Your task to perform on an android device: How do I get to the nearest AT&T Store? Image 0: 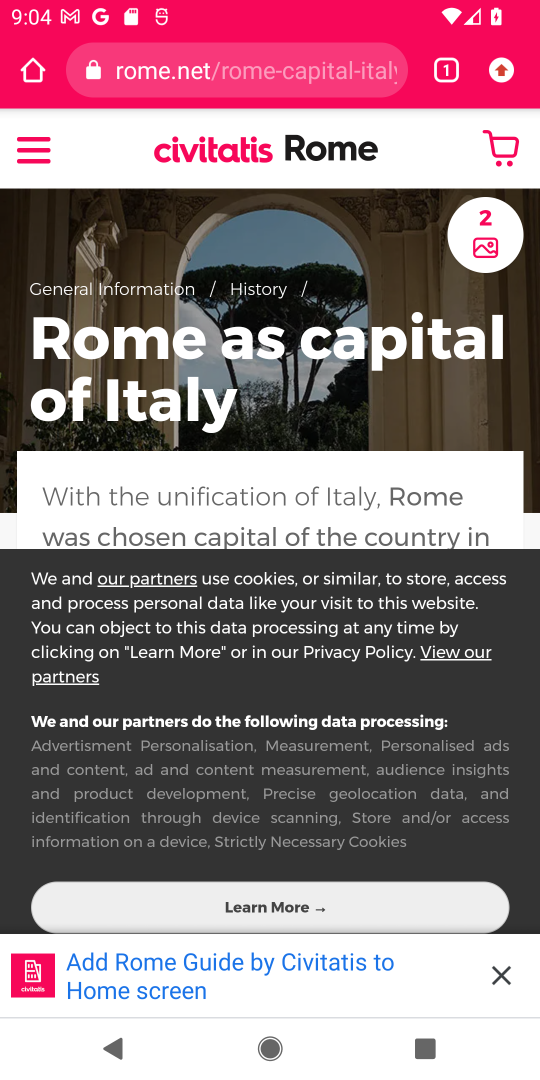
Step 0: press home button
Your task to perform on an android device: How do I get to the nearest AT&T Store? Image 1: 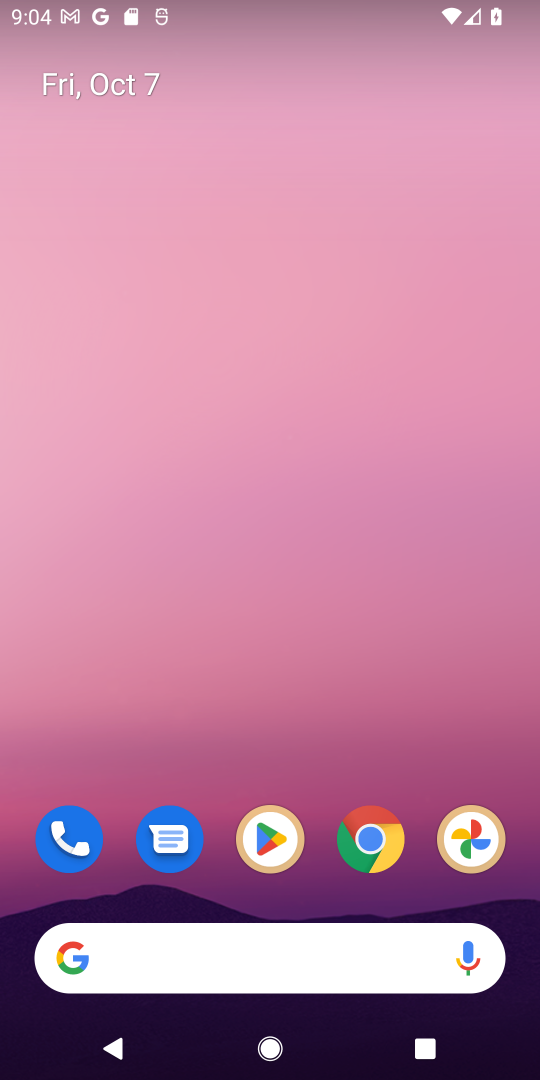
Step 1: click (374, 850)
Your task to perform on an android device: How do I get to the nearest AT&T Store? Image 2: 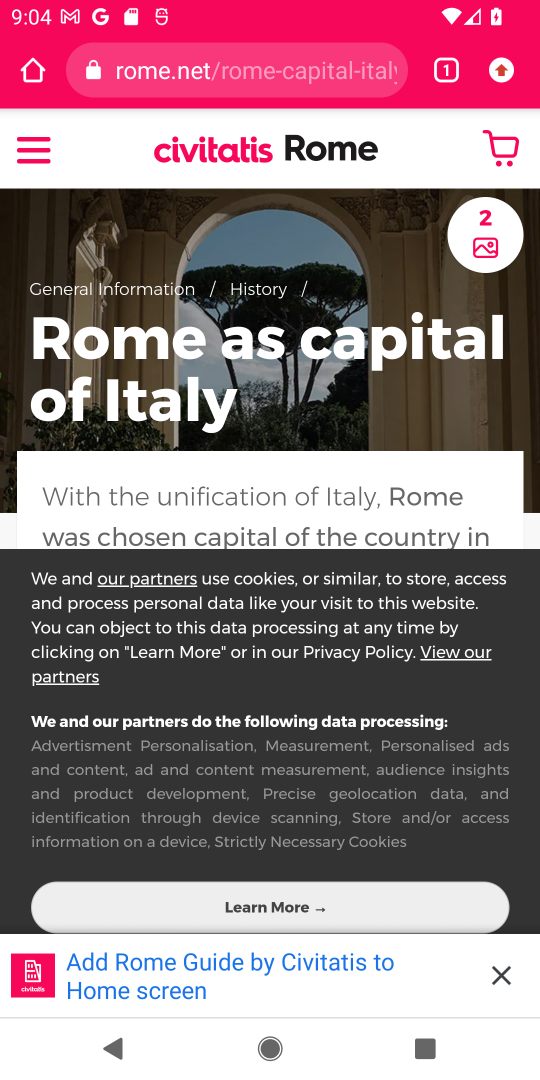
Step 2: click (332, 72)
Your task to perform on an android device: How do I get to the nearest AT&T Store? Image 3: 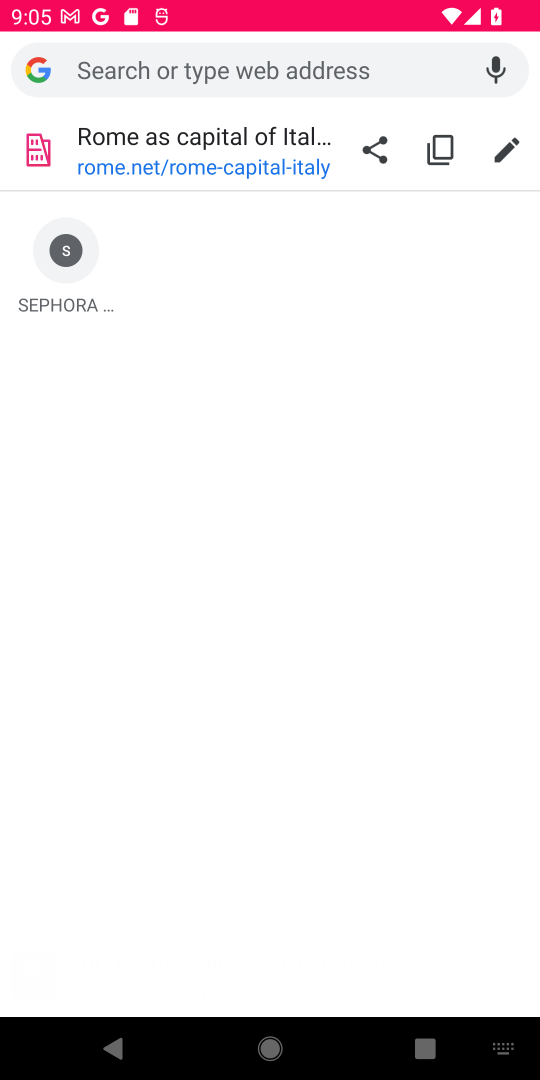
Step 3: type "nearest AT & T store"
Your task to perform on an android device: How do I get to the nearest AT&T Store? Image 4: 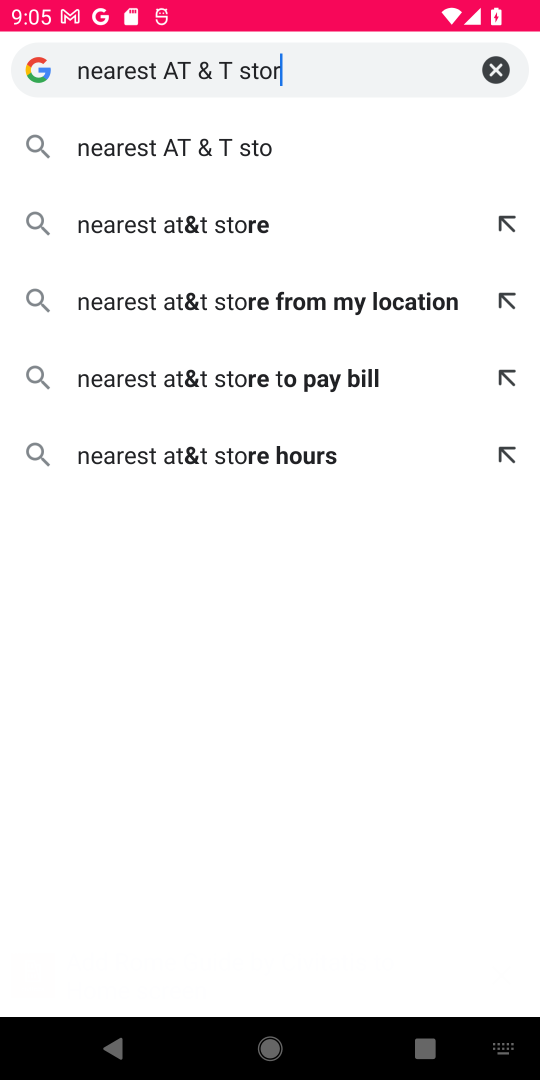
Step 4: type ""
Your task to perform on an android device: How do I get to the nearest AT&T Store? Image 5: 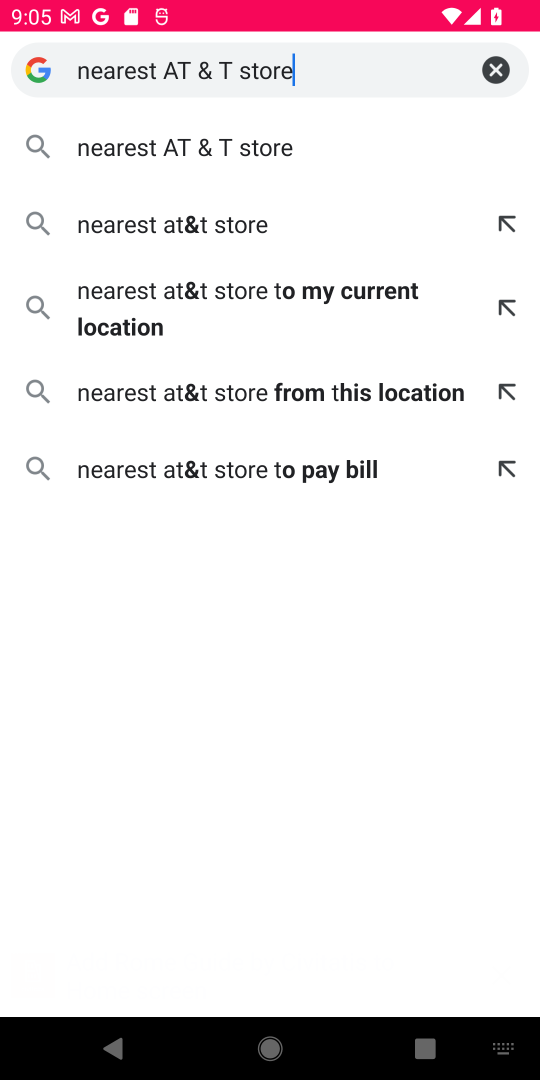
Step 5: click (178, 147)
Your task to perform on an android device: How do I get to the nearest AT&T Store? Image 6: 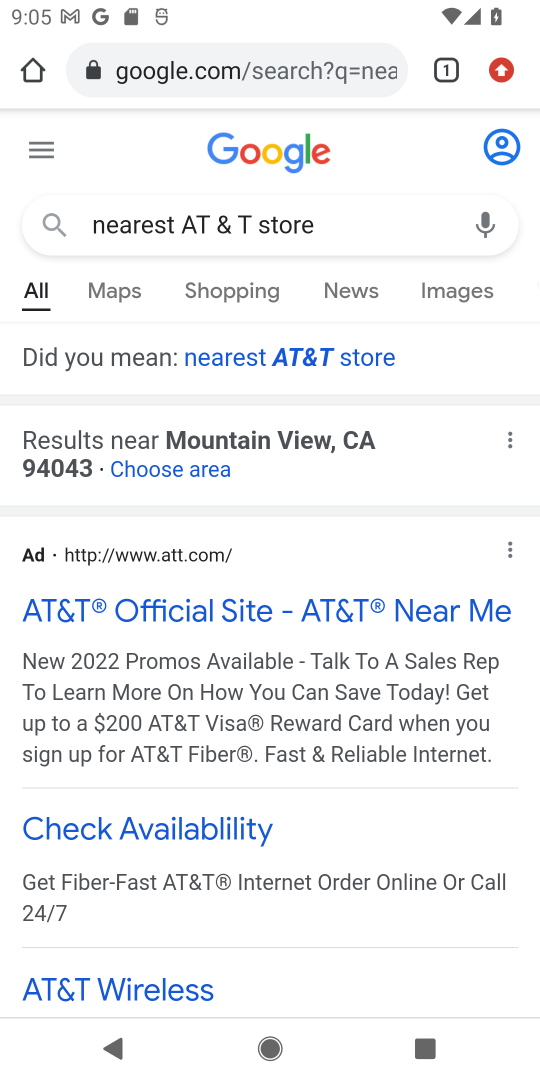
Step 6: click (212, 609)
Your task to perform on an android device: How do I get to the nearest AT&T Store? Image 7: 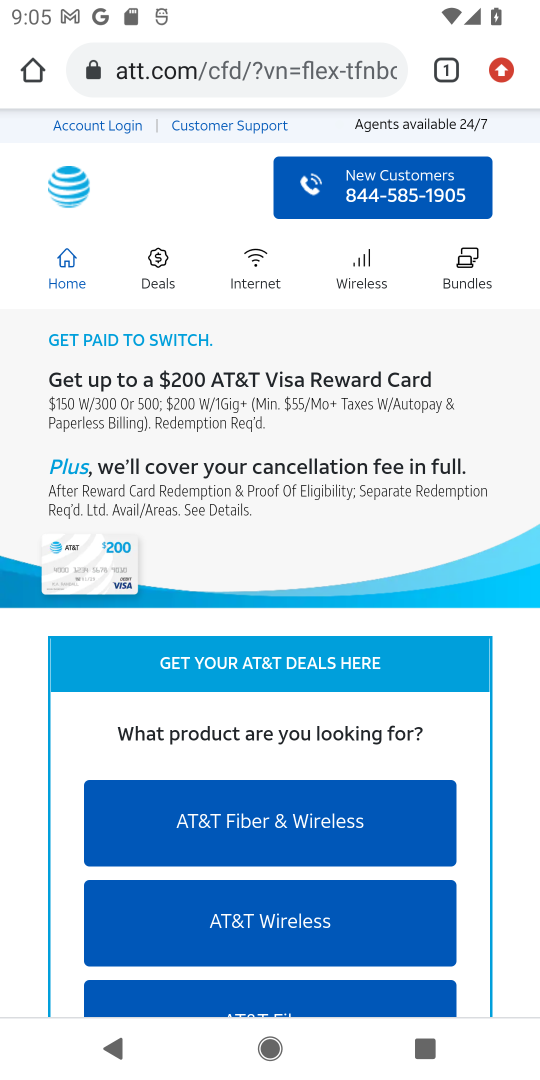
Step 7: drag from (409, 705) to (488, 268)
Your task to perform on an android device: How do I get to the nearest AT&T Store? Image 8: 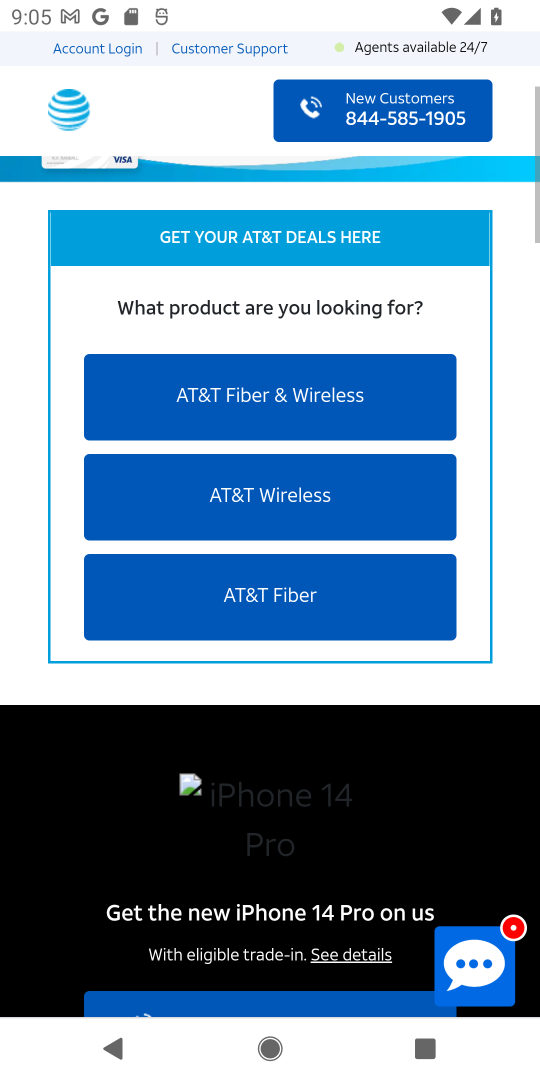
Step 8: drag from (243, 828) to (332, 304)
Your task to perform on an android device: How do I get to the nearest AT&T Store? Image 9: 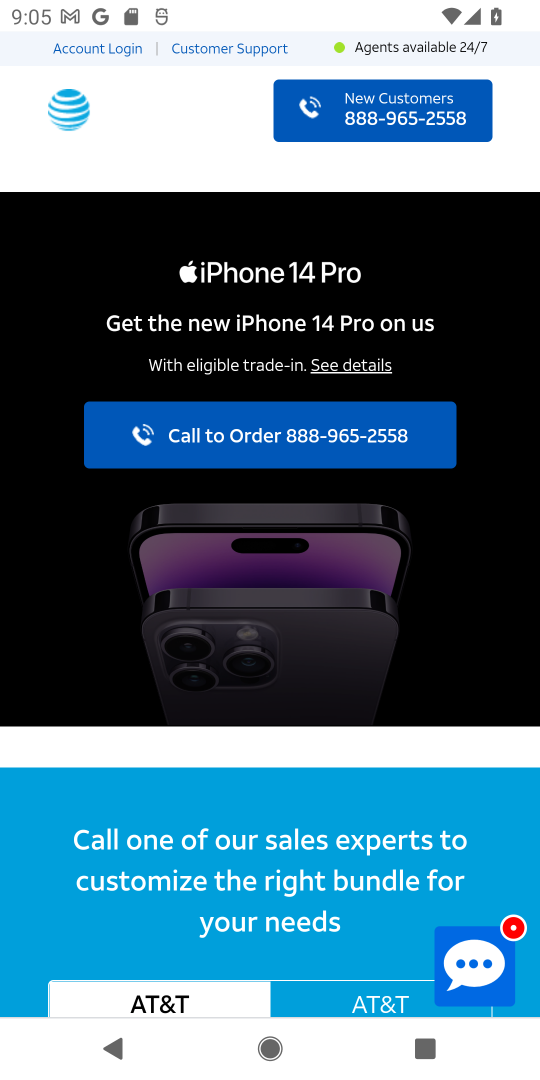
Step 9: drag from (358, 323) to (329, 685)
Your task to perform on an android device: How do I get to the nearest AT&T Store? Image 10: 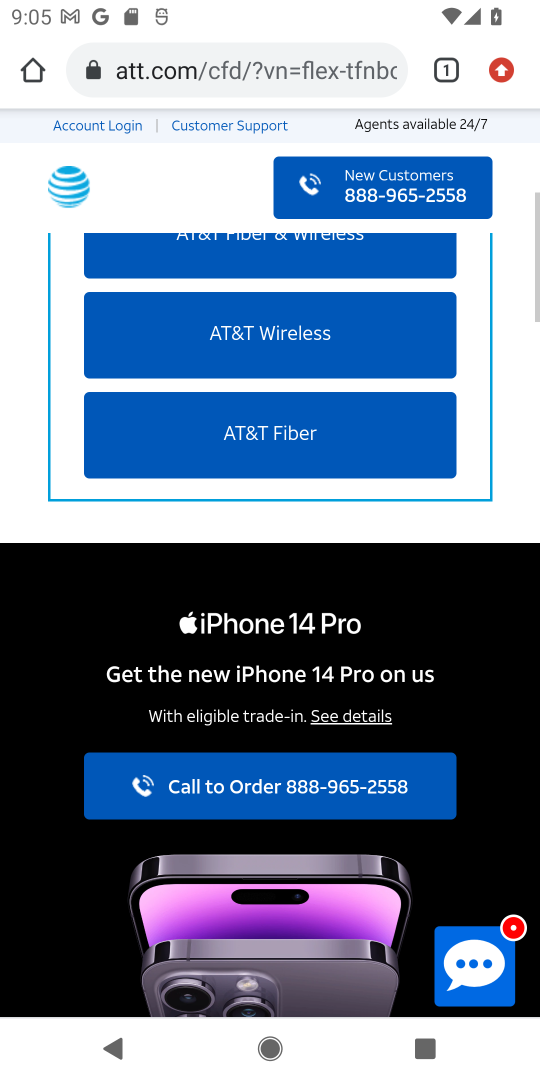
Step 10: drag from (384, 412) to (337, 757)
Your task to perform on an android device: How do I get to the nearest AT&T Store? Image 11: 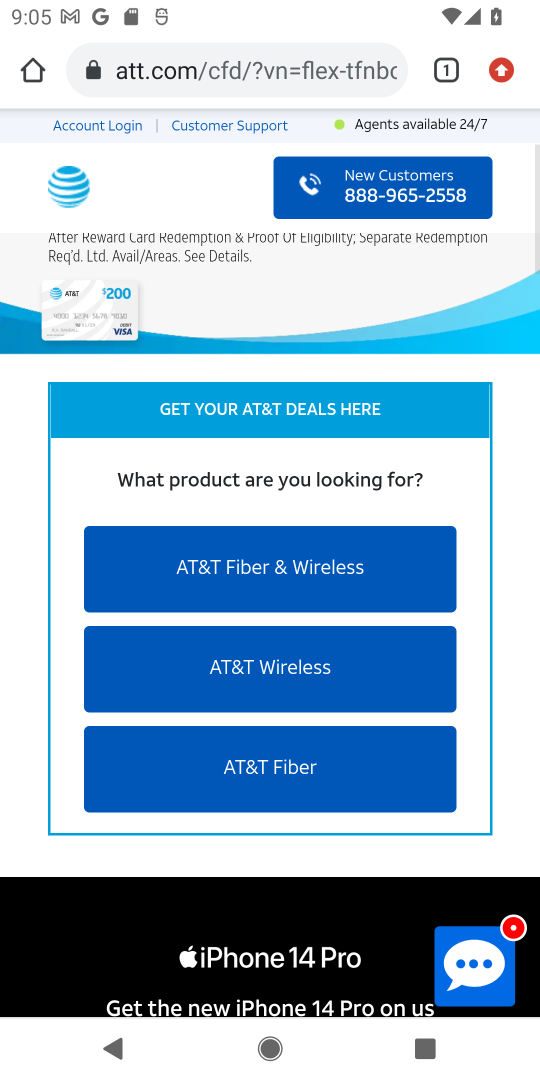
Step 11: drag from (379, 407) to (343, 724)
Your task to perform on an android device: How do I get to the nearest AT&T Store? Image 12: 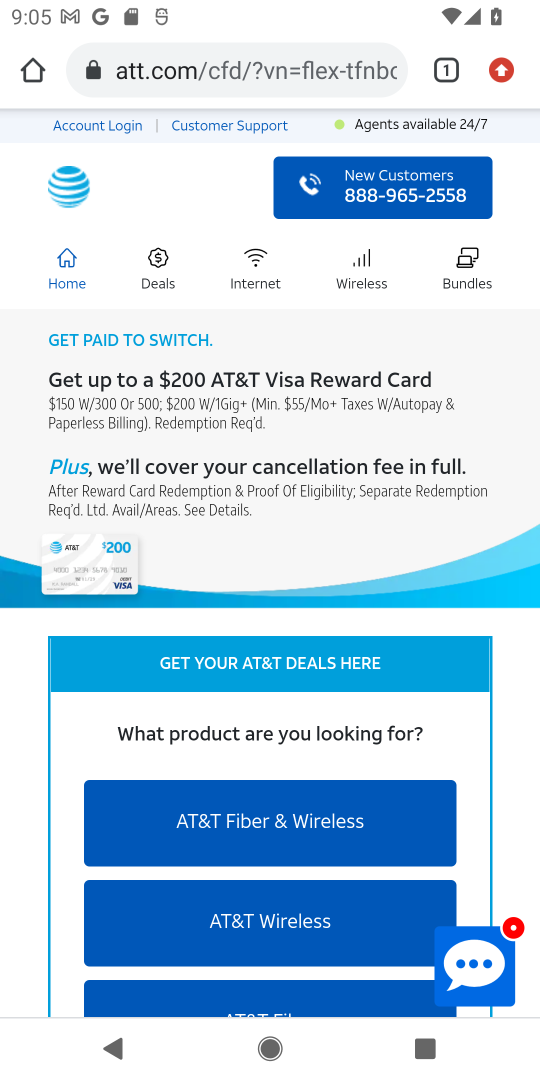
Step 12: drag from (270, 351) to (207, 961)
Your task to perform on an android device: How do I get to the nearest AT&T Store? Image 13: 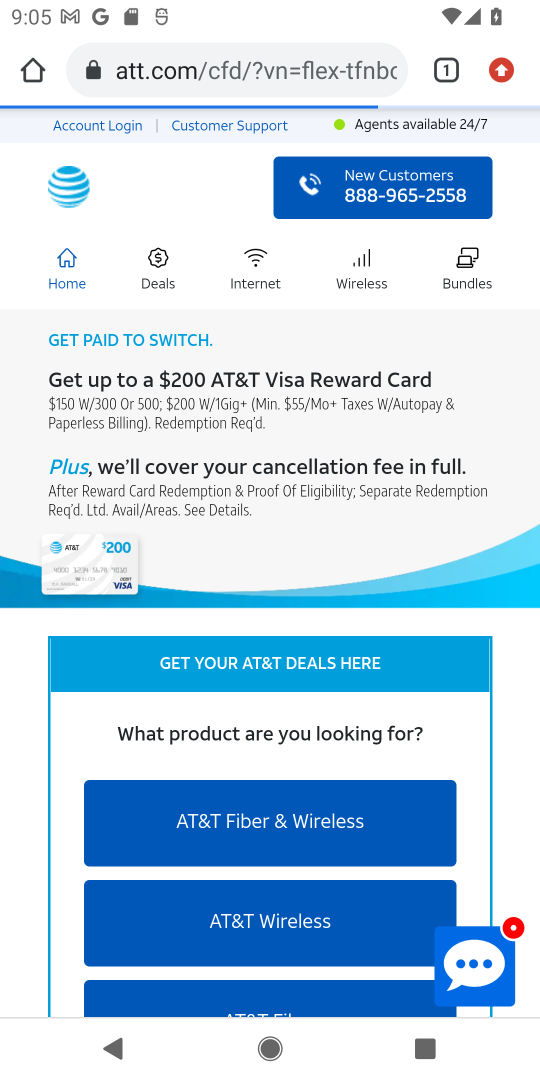
Step 13: drag from (168, 757) to (226, 482)
Your task to perform on an android device: How do I get to the nearest AT&T Store? Image 14: 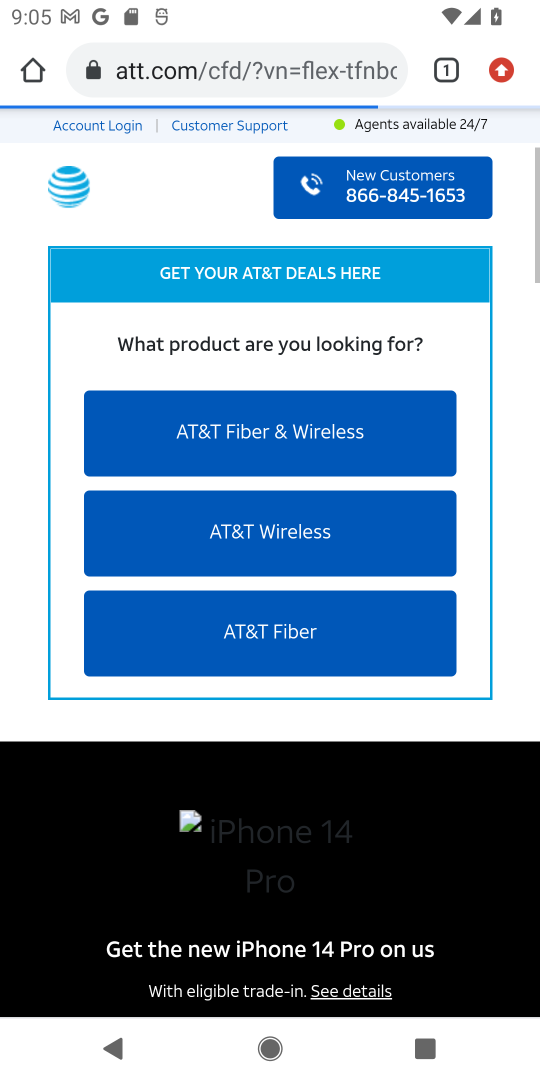
Step 14: drag from (243, 899) to (314, 421)
Your task to perform on an android device: How do I get to the nearest AT&T Store? Image 15: 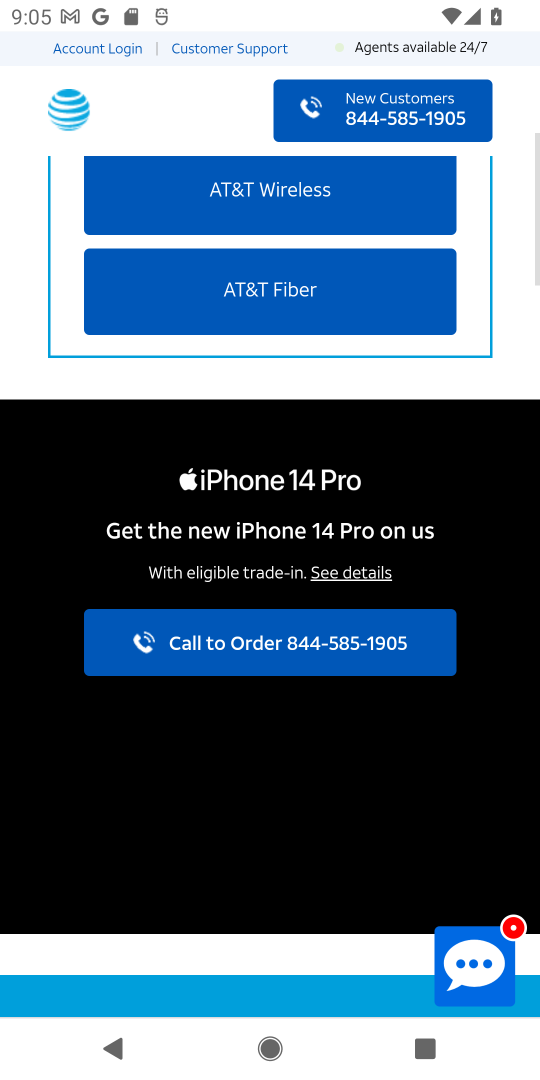
Step 15: drag from (315, 805) to (380, 387)
Your task to perform on an android device: How do I get to the nearest AT&T Store? Image 16: 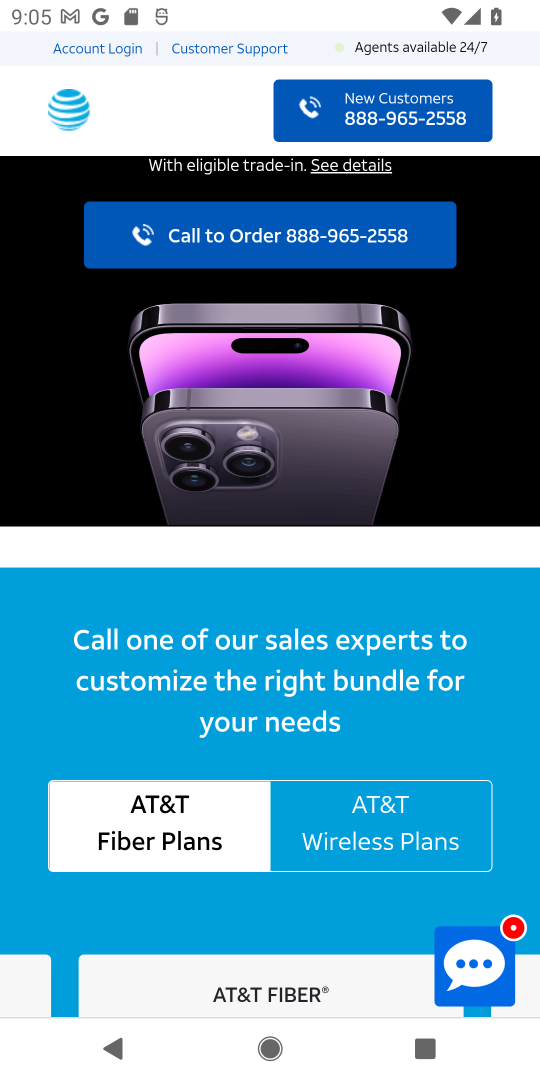
Step 16: drag from (302, 353) to (254, 822)
Your task to perform on an android device: How do I get to the nearest AT&T Store? Image 17: 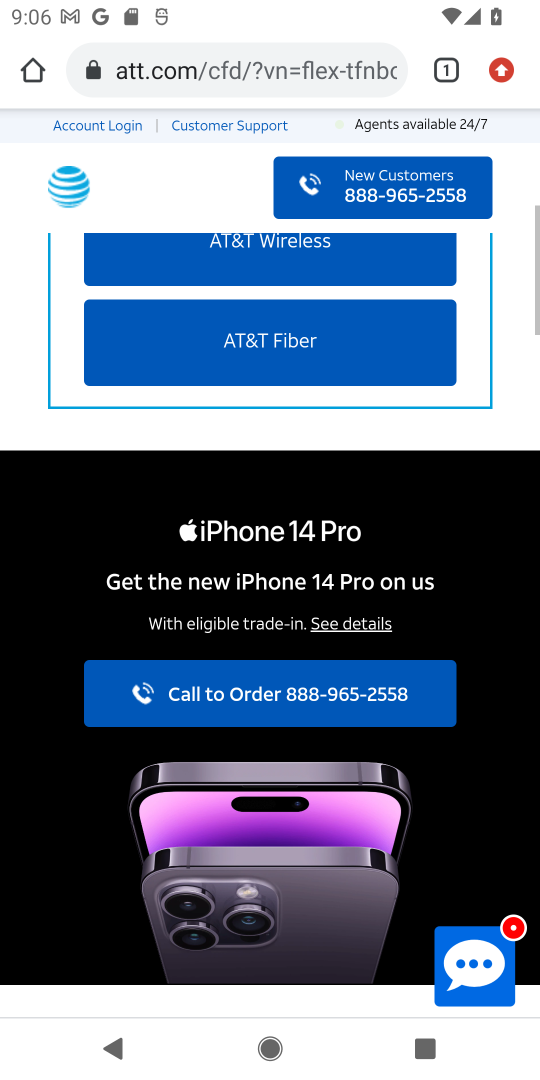
Step 17: drag from (360, 360) to (247, 924)
Your task to perform on an android device: How do I get to the nearest AT&T Store? Image 18: 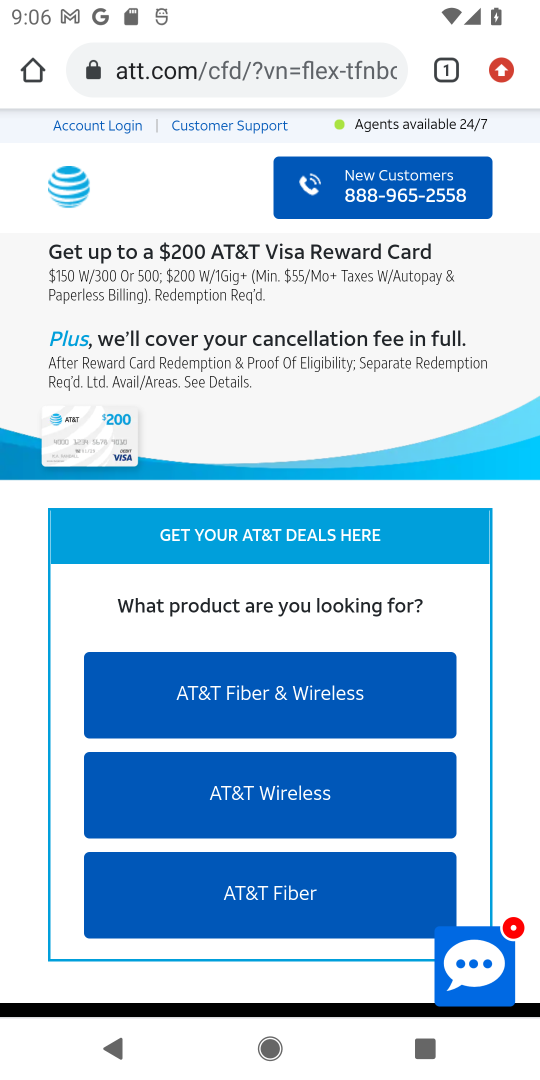
Step 18: drag from (248, 437) to (202, 985)
Your task to perform on an android device: How do I get to the nearest AT&T Store? Image 19: 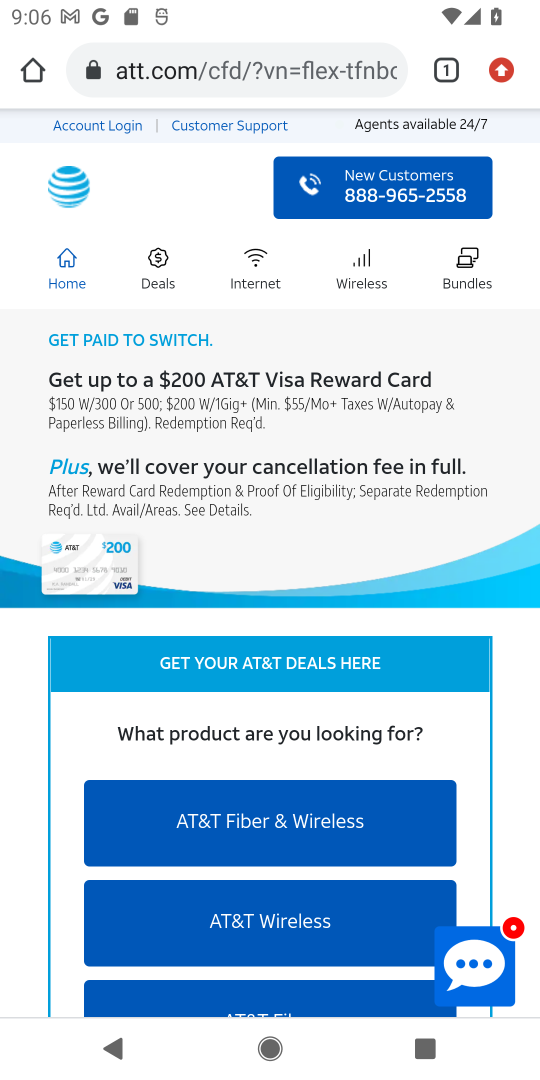
Step 19: drag from (235, 508) to (206, 831)
Your task to perform on an android device: How do I get to the nearest AT&T Store? Image 20: 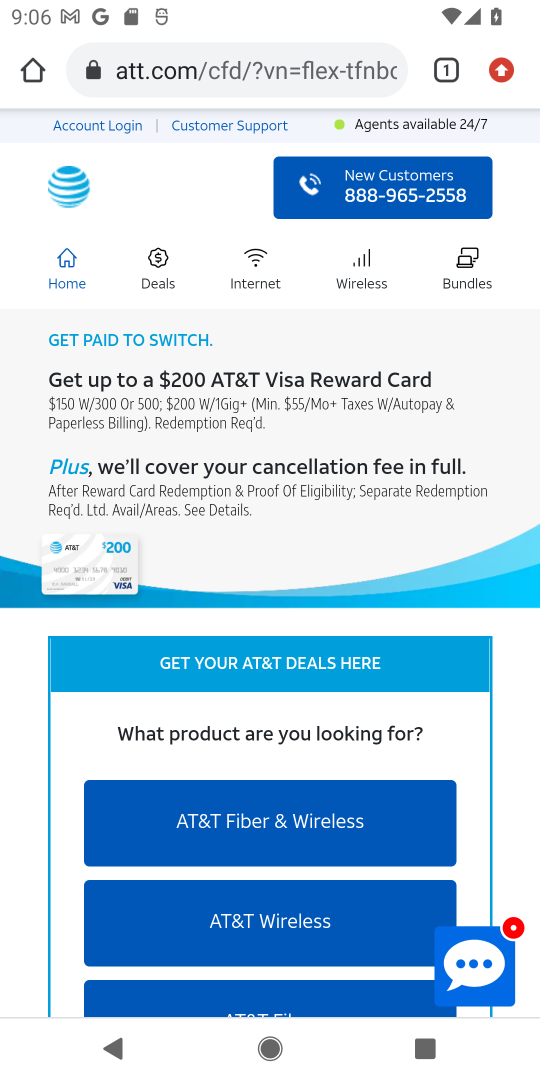
Step 20: press back button
Your task to perform on an android device: How do I get to the nearest AT&T Store? Image 21: 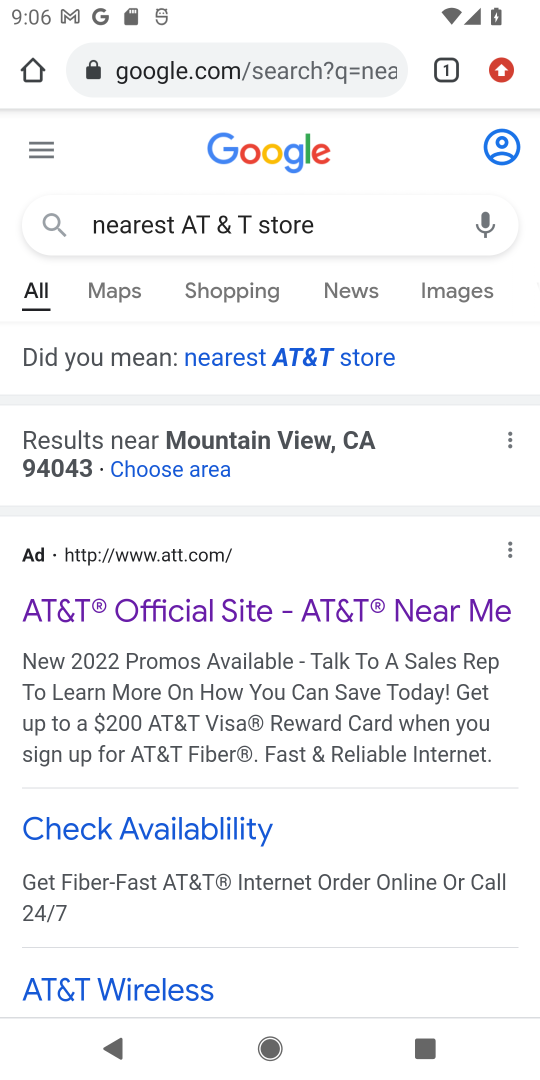
Step 21: drag from (319, 818) to (339, 311)
Your task to perform on an android device: How do I get to the nearest AT&T Store? Image 22: 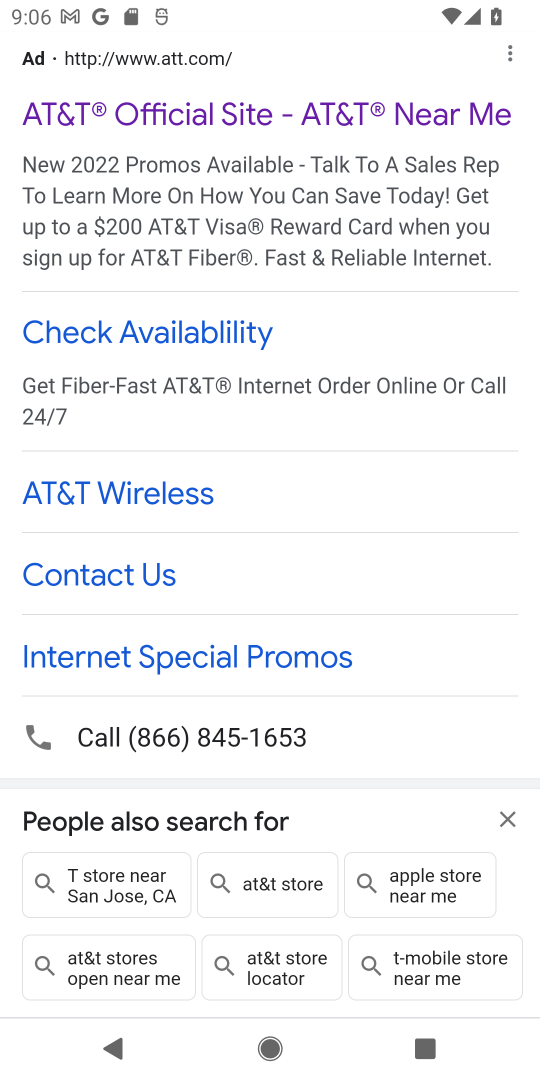
Step 22: drag from (320, 654) to (379, 261)
Your task to perform on an android device: How do I get to the nearest AT&T Store? Image 23: 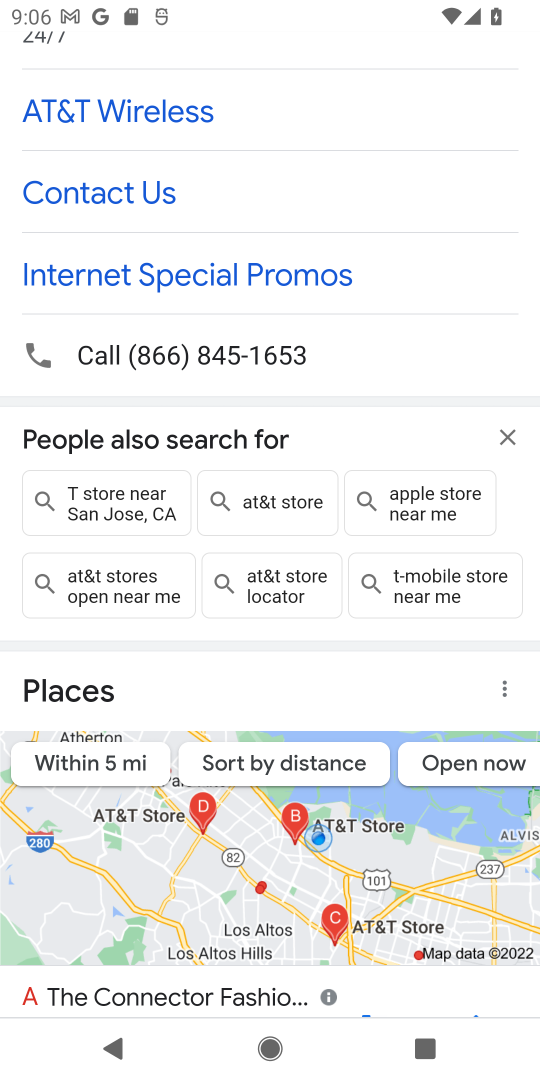
Step 23: drag from (243, 729) to (422, 418)
Your task to perform on an android device: How do I get to the nearest AT&T Store? Image 24: 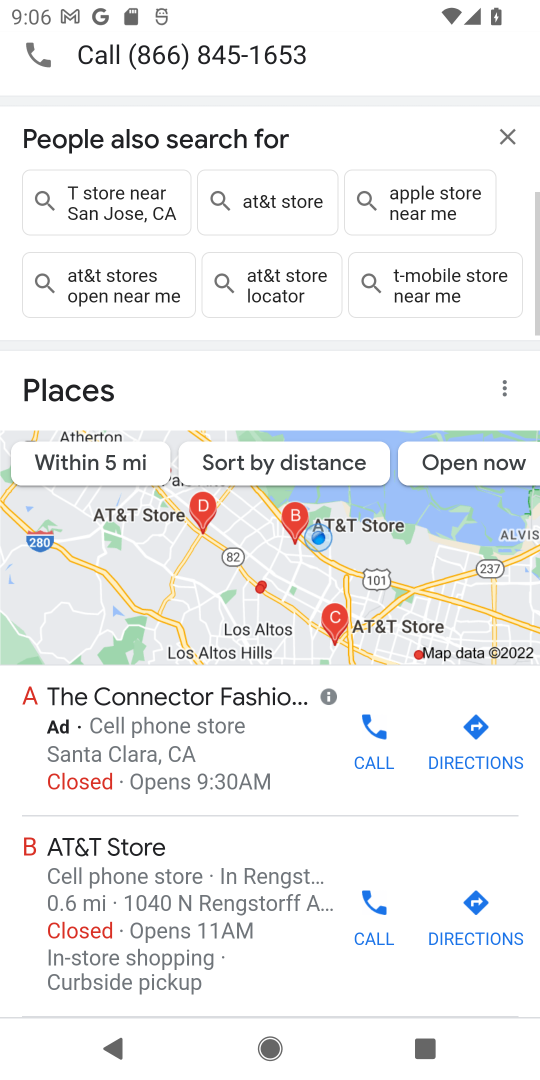
Step 24: drag from (282, 811) to (367, 522)
Your task to perform on an android device: How do I get to the nearest AT&T Store? Image 25: 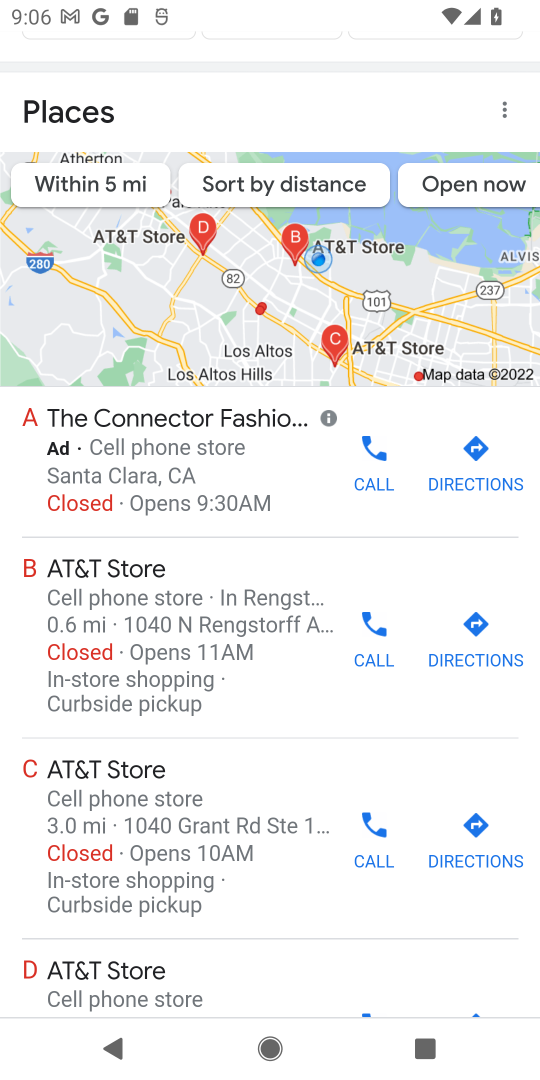
Step 25: click (87, 764)
Your task to perform on an android device: How do I get to the nearest AT&T Store? Image 26: 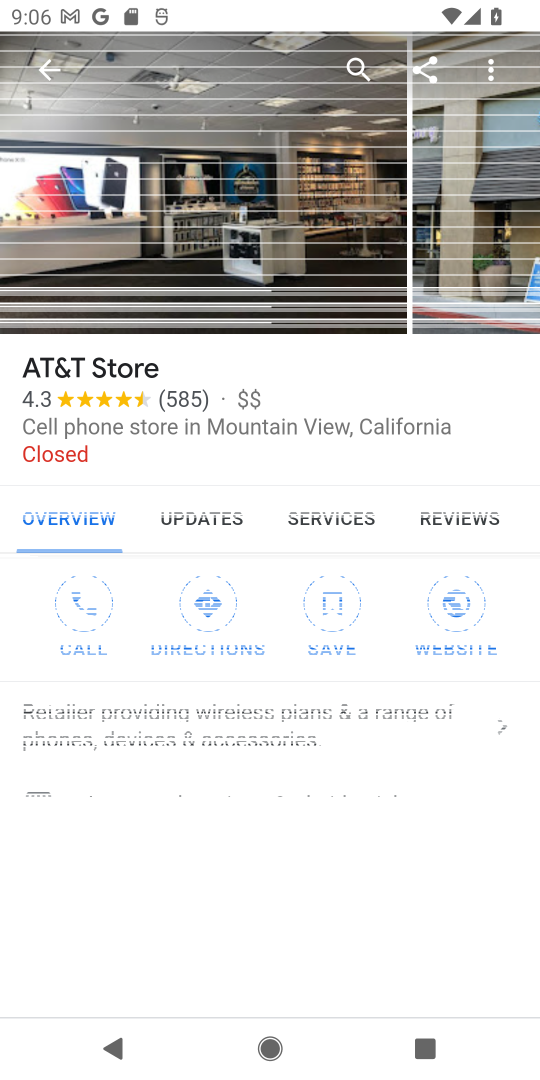
Step 26: task complete